Your task to perform on an android device: turn on javascript in the chrome app Image 0: 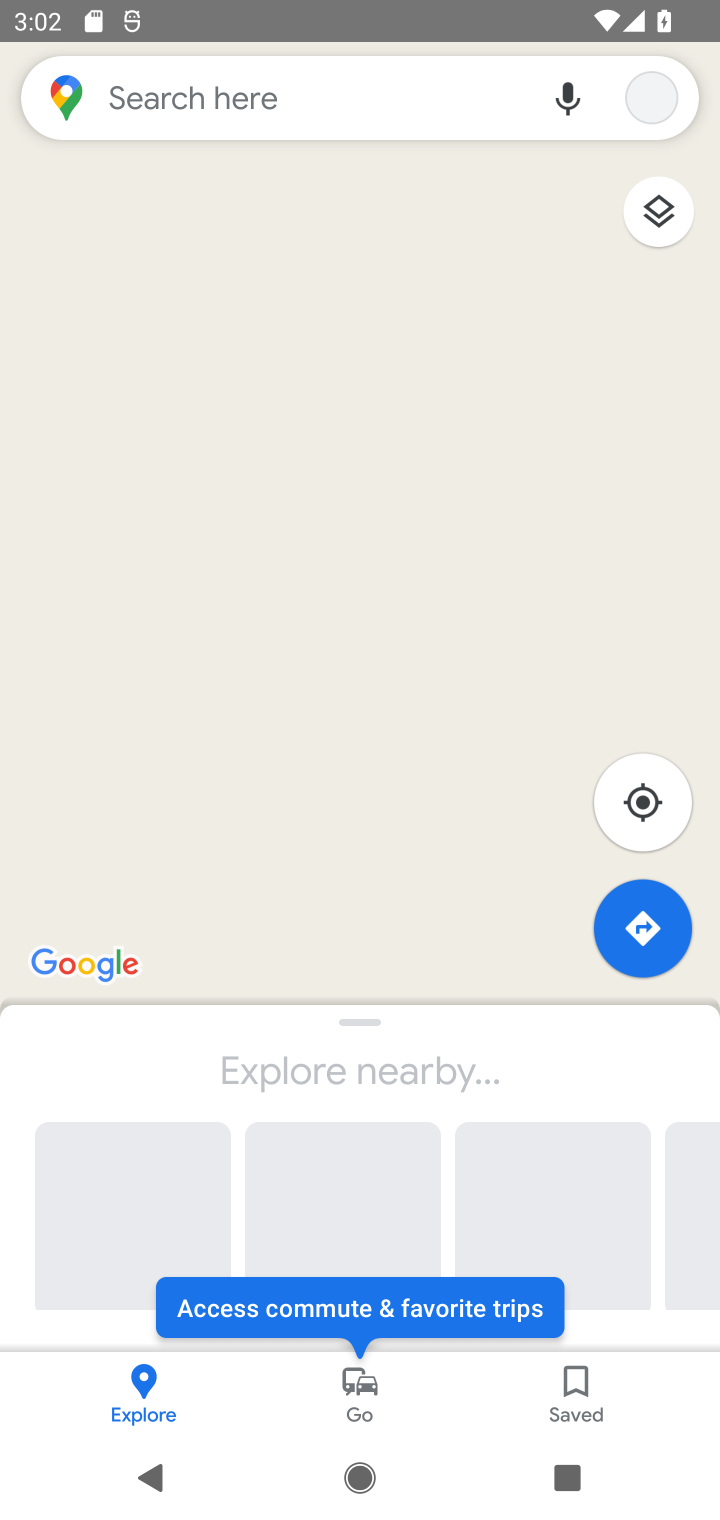
Step 0: press home button
Your task to perform on an android device: turn on javascript in the chrome app Image 1: 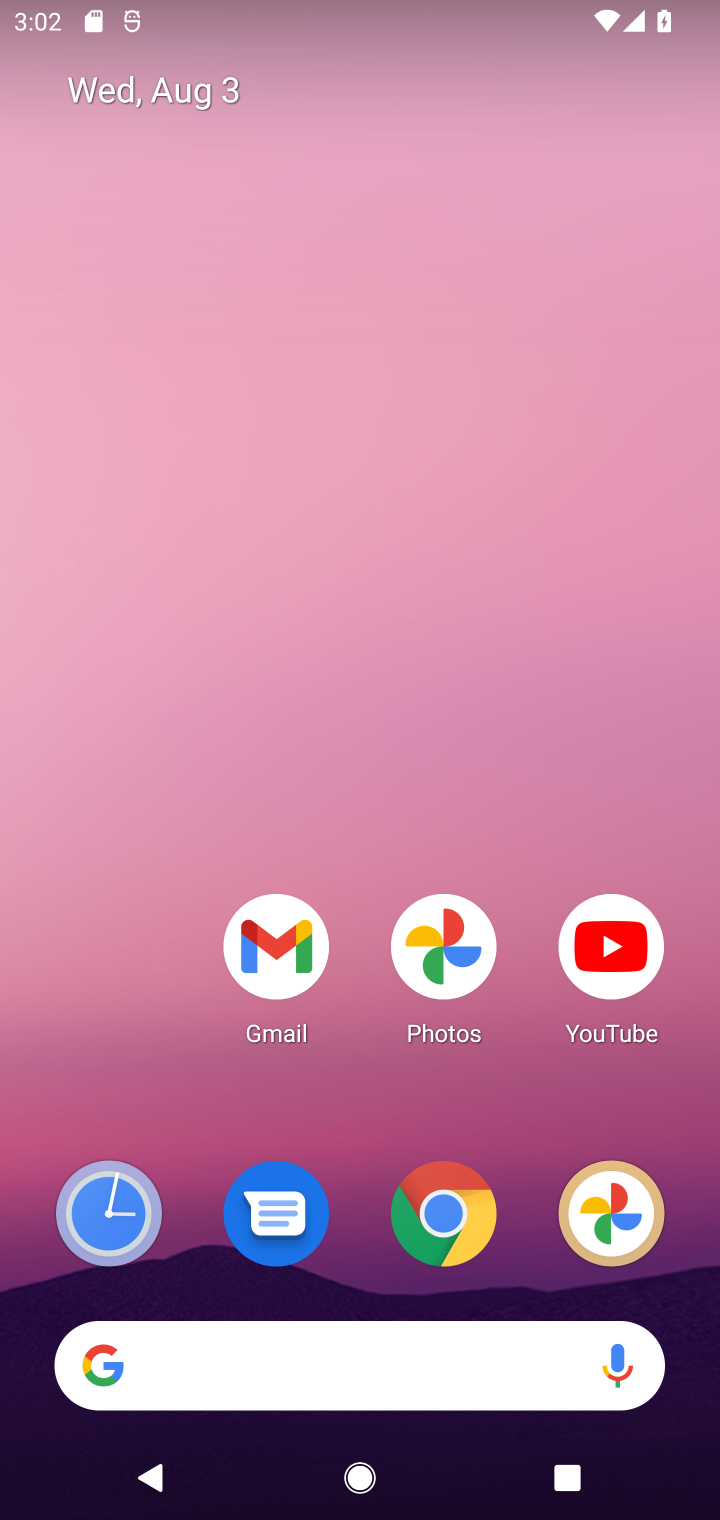
Step 1: click (453, 1204)
Your task to perform on an android device: turn on javascript in the chrome app Image 2: 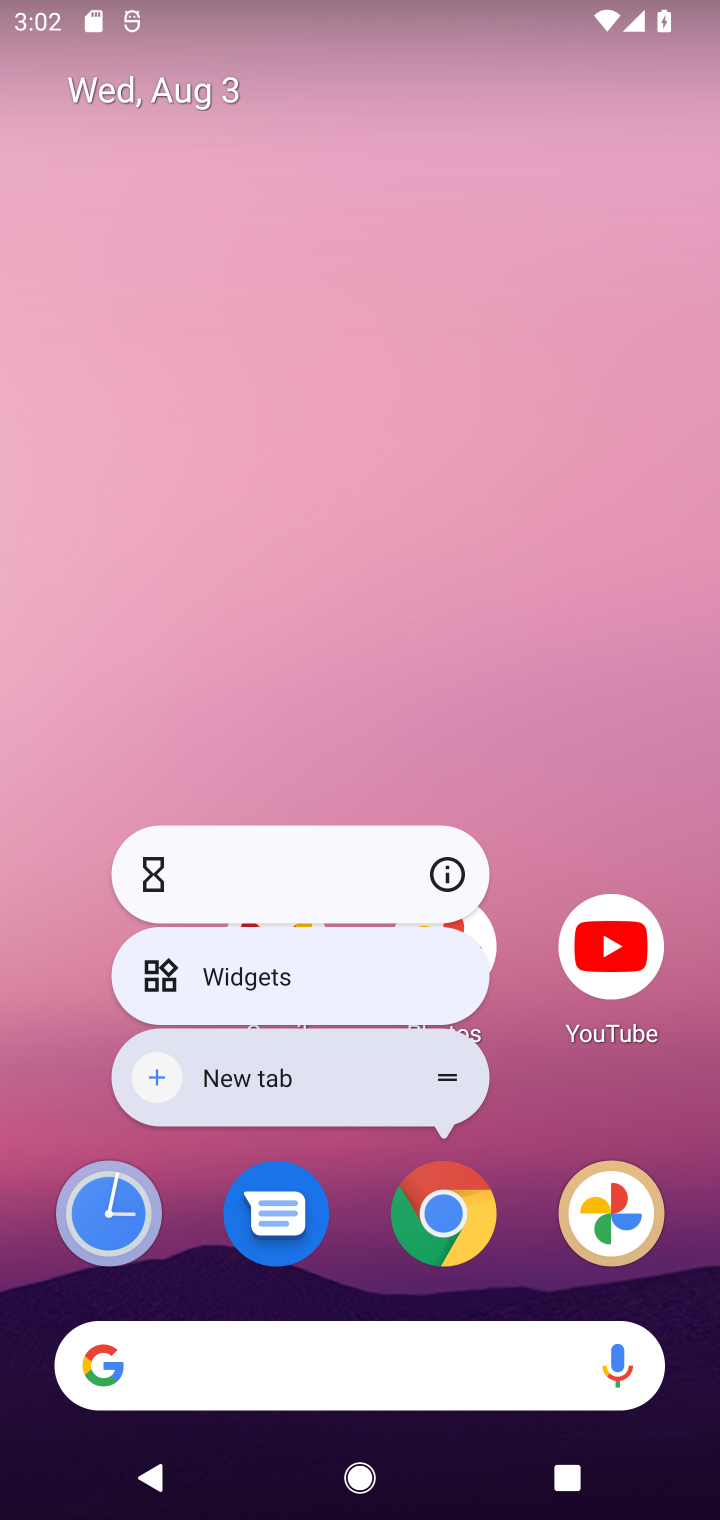
Step 2: click (473, 1184)
Your task to perform on an android device: turn on javascript in the chrome app Image 3: 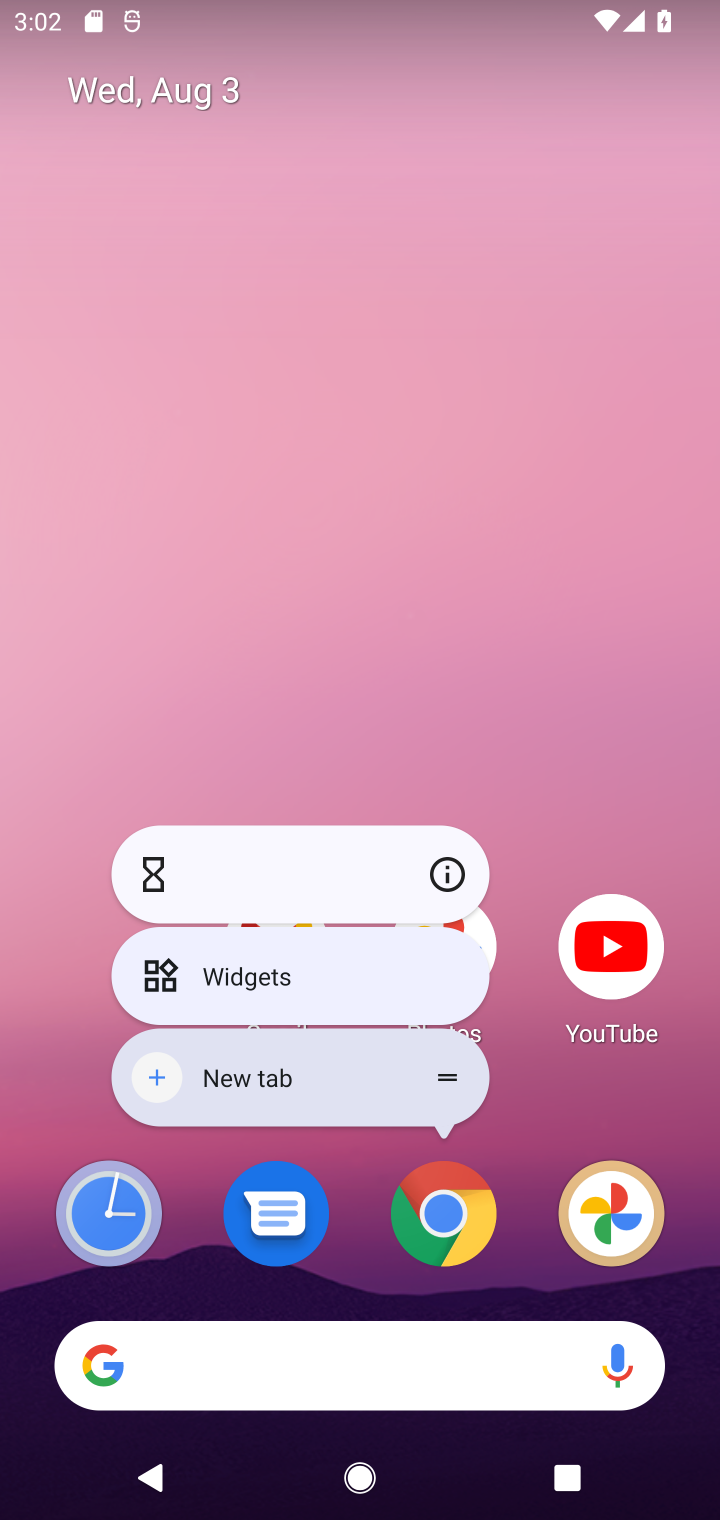
Step 3: click (462, 1202)
Your task to perform on an android device: turn on javascript in the chrome app Image 4: 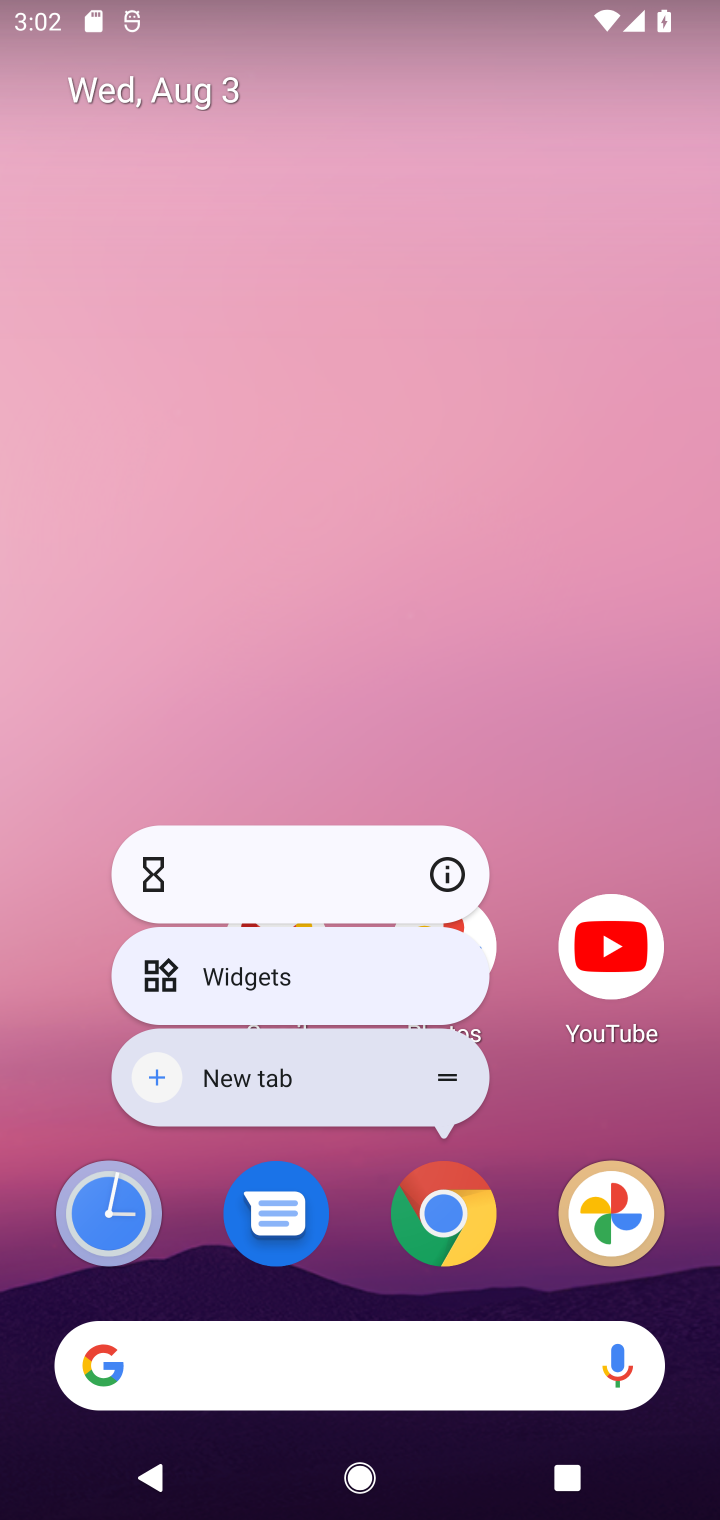
Step 4: drag from (356, 1262) to (371, 348)
Your task to perform on an android device: turn on javascript in the chrome app Image 5: 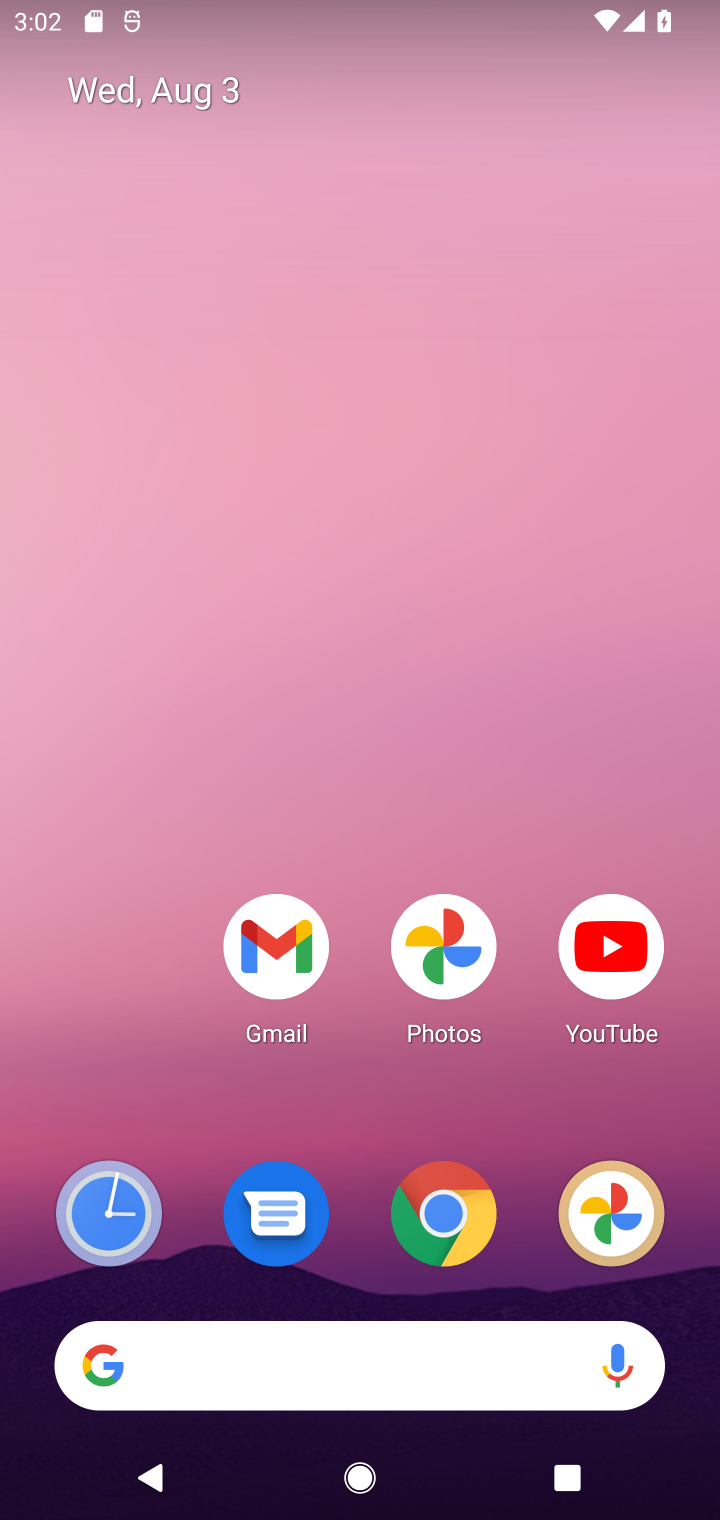
Step 5: drag from (317, 1293) to (337, 268)
Your task to perform on an android device: turn on javascript in the chrome app Image 6: 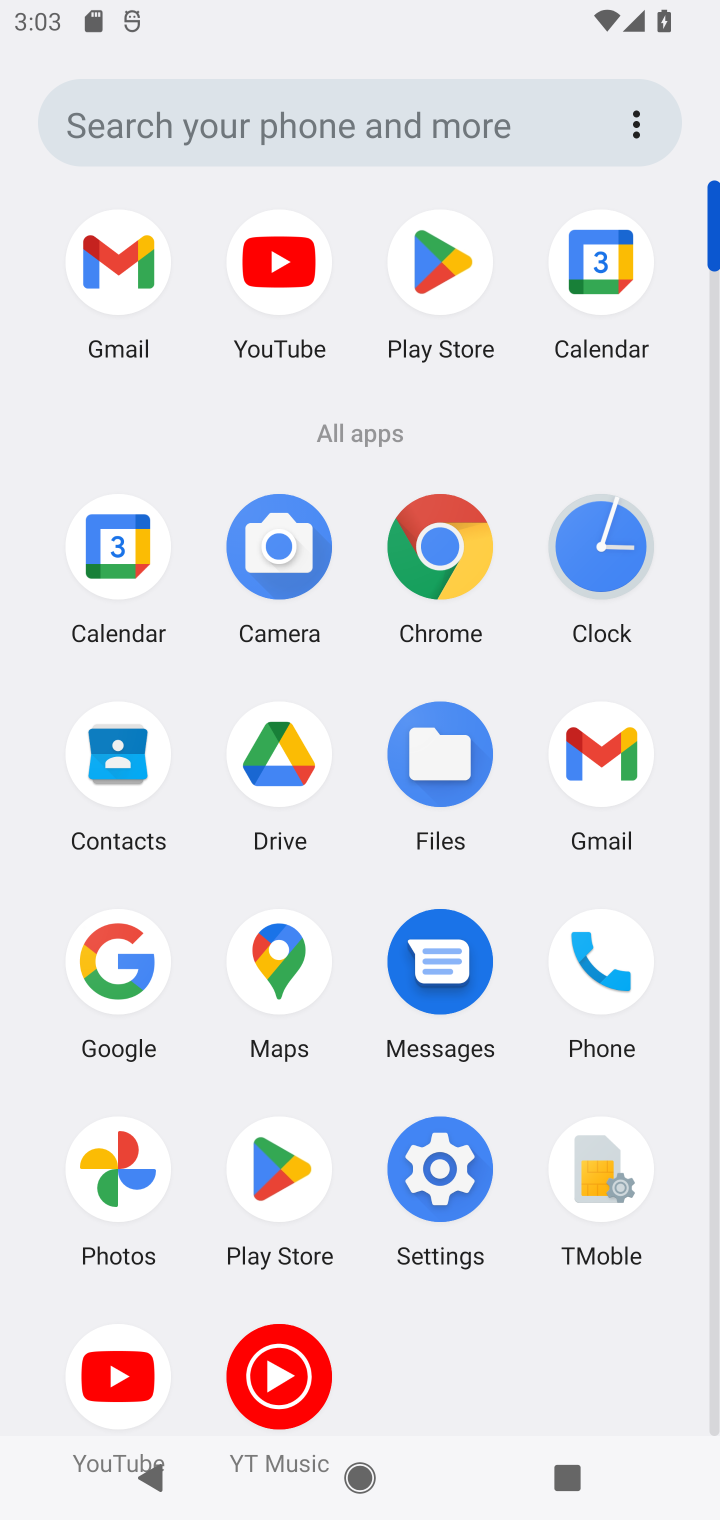
Step 6: click (446, 533)
Your task to perform on an android device: turn on javascript in the chrome app Image 7: 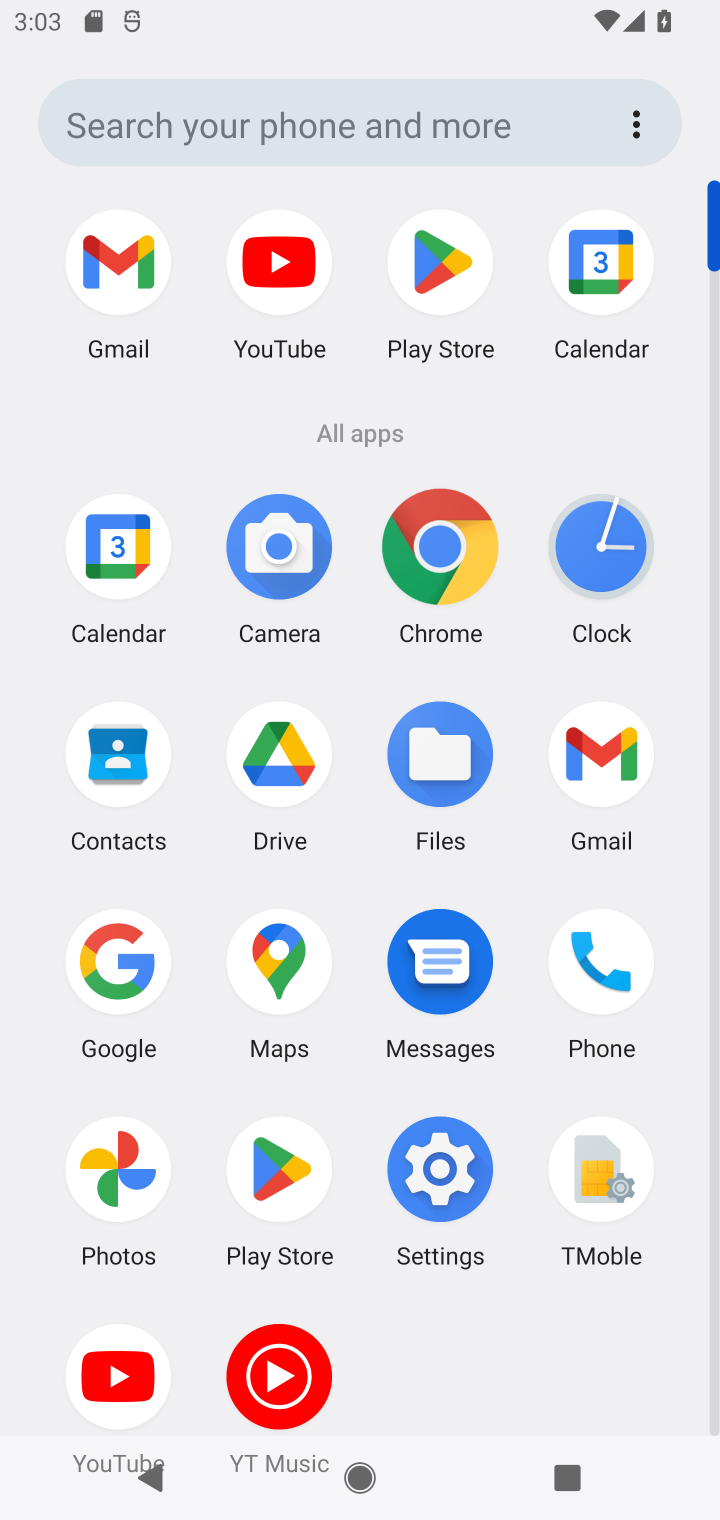
Step 7: click (439, 577)
Your task to perform on an android device: turn on javascript in the chrome app Image 8: 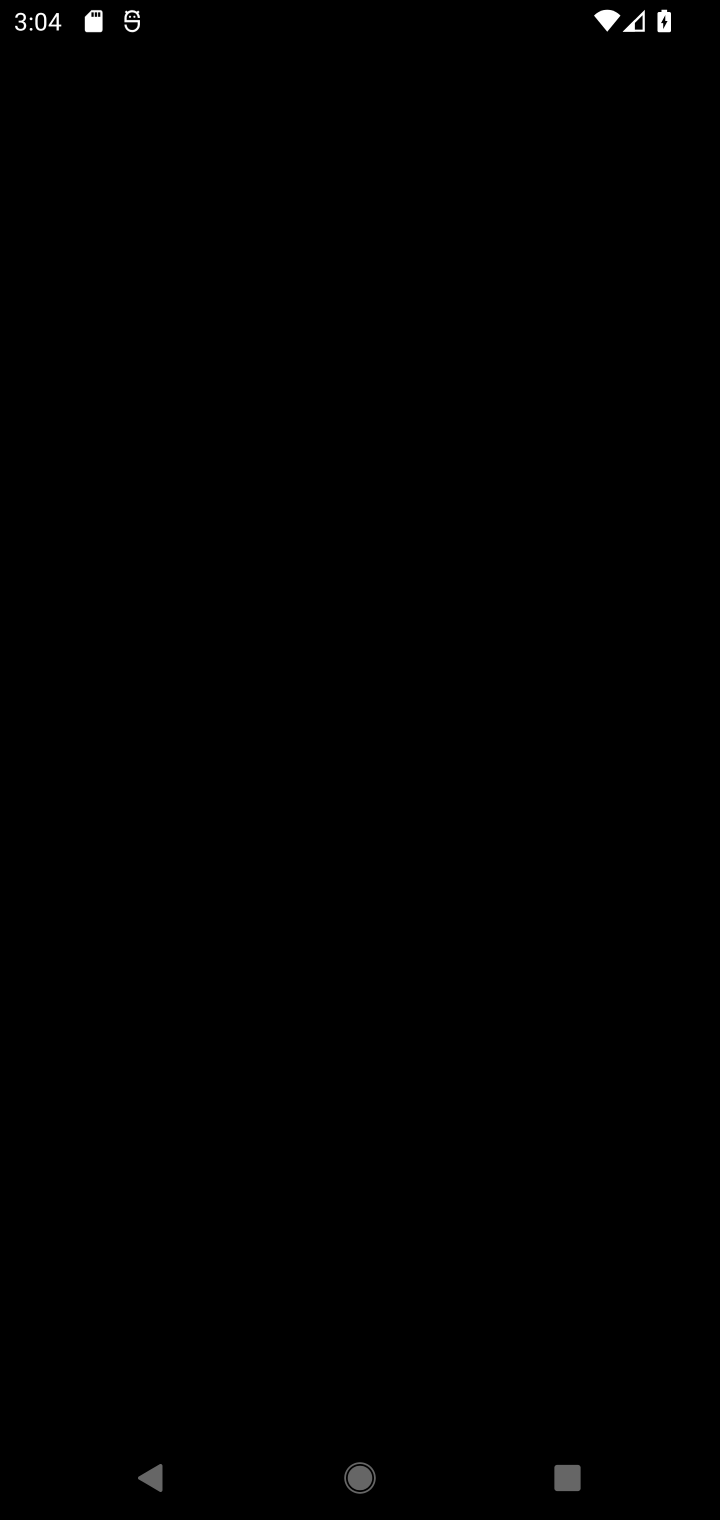
Step 8: task complete